Your task to perform on an android device: change the clock style Image 0: 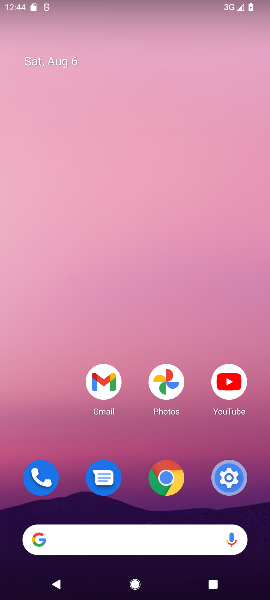
Step 0: drag from (130, 417) to (124, 224)
Your task to perform on an android device: change the clock style Image 1: 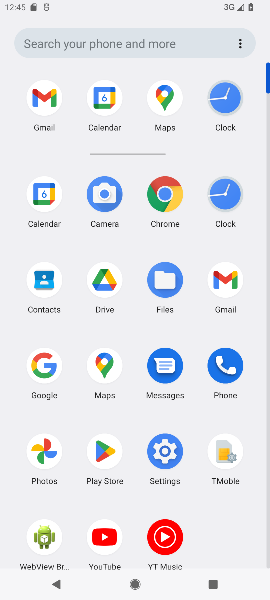
Step 1: click (223, 198)
Your task to perform on an android device: change the clock style Image 2: 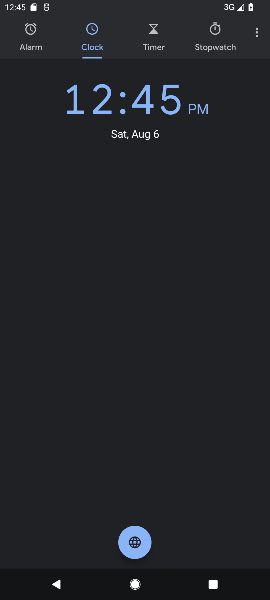
Step 2: click (252, 33)
Your task to perform on an android device: change the clock style Image 3: 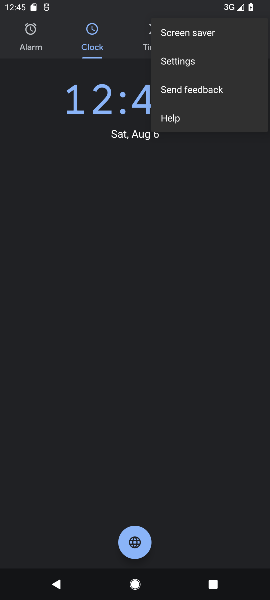
Step 3: click (217, 68)
Your task to perform on an android device: change the clock style Image 4: 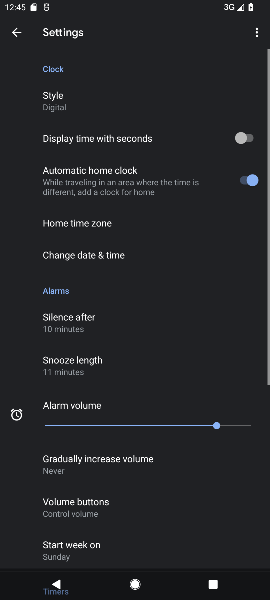
Step 4: click (64, 103)
Your task to perform on an android device: change the clock style Image 5: 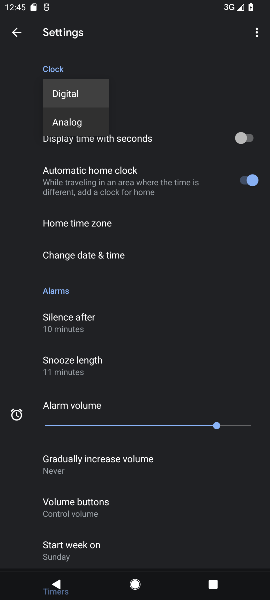
Step 5: click (74, 119)
Your task to perform on an android device: change the clock style Image 6: 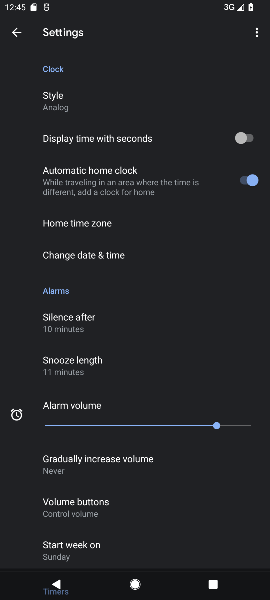
Step 6: task complete